Your task to perform on an android device: change your default location settings in chrome Image 0: 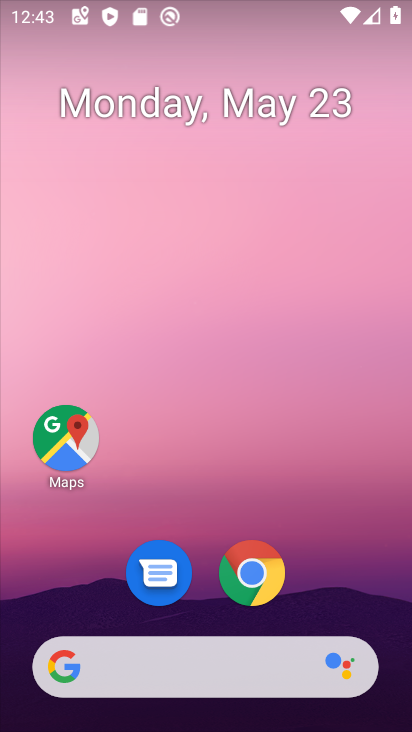
Step 0: drag from (320, 646) to (351, 1)
Your task to perform on an android device: change your default location settings in chrome Image 1: 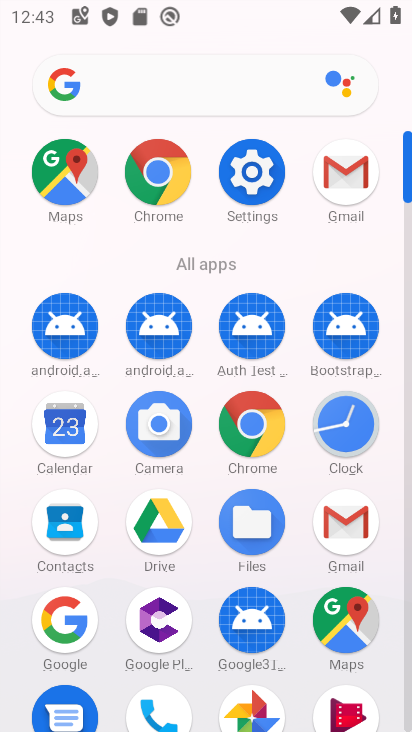
Step 1: click (261, 437)
Your task to perform on an android device: change your default location settings in chrome Image 2: 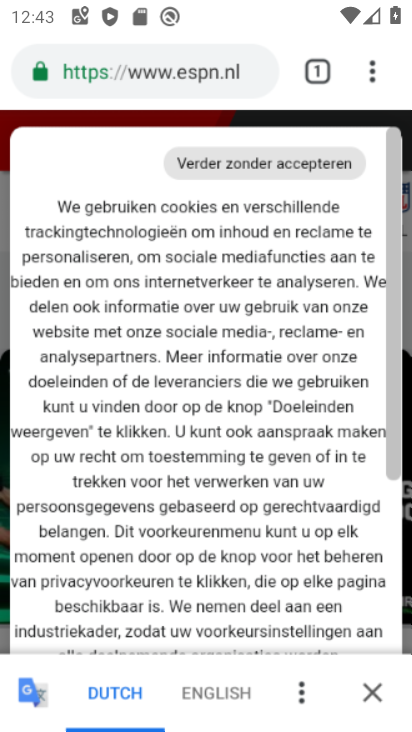
Step 2: click (170, 439)
Your task to perform on an android device: change your default location settings in chrome Image 3: 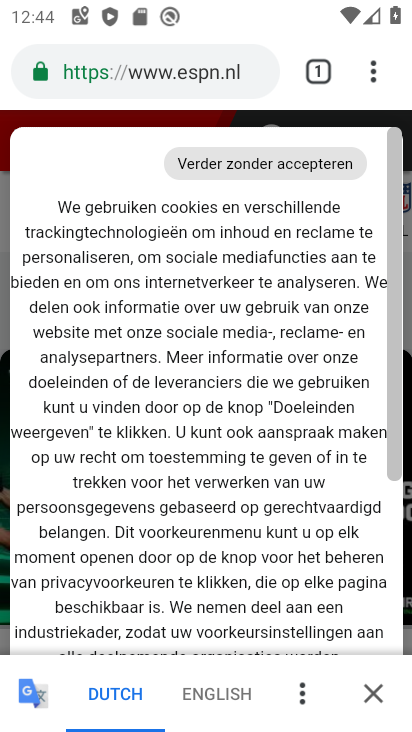
Step 3: press back button
Your task to perform on an android device: change your default location settings in chrome Image 4: 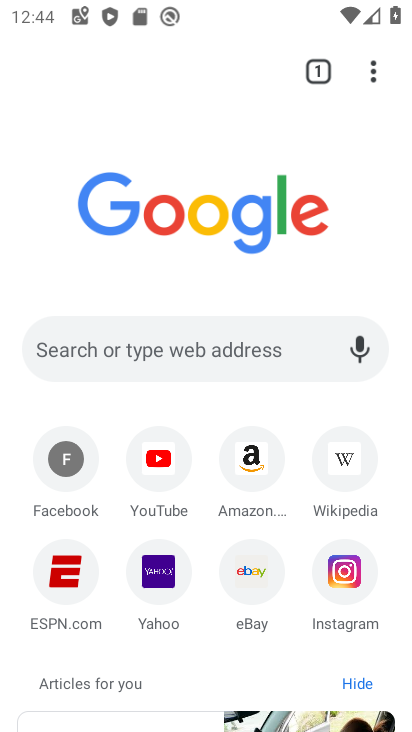
Step 4: drag from (363, 57) to (166, 604)
Your task to perform on an android device: change your default location settings in chrome Image 5: 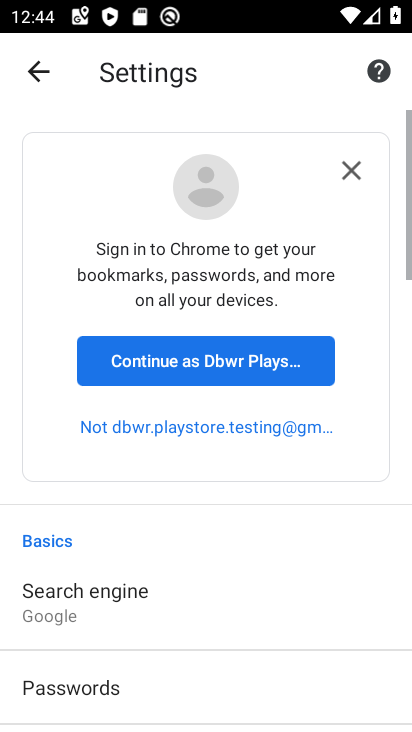
Step 5: drag from (158, 595) to (254, 106)
Your task to perform on an android device: change your default location settings in chrome Image 6: 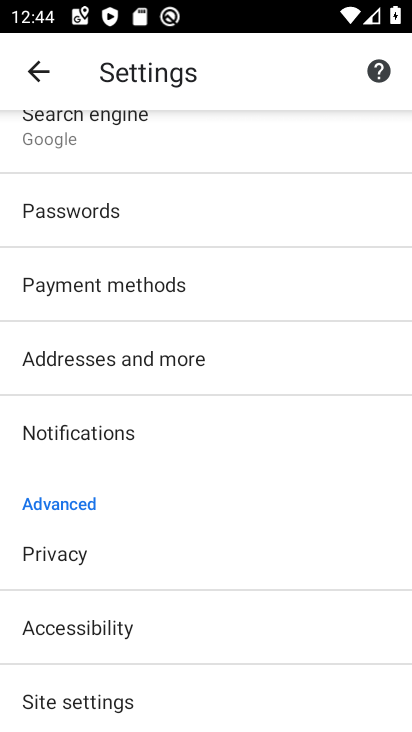
Step 6: drag from (209, 629) to (171, 312)
Your task to perform on an android device: change your default location settings in chrome Image 7: 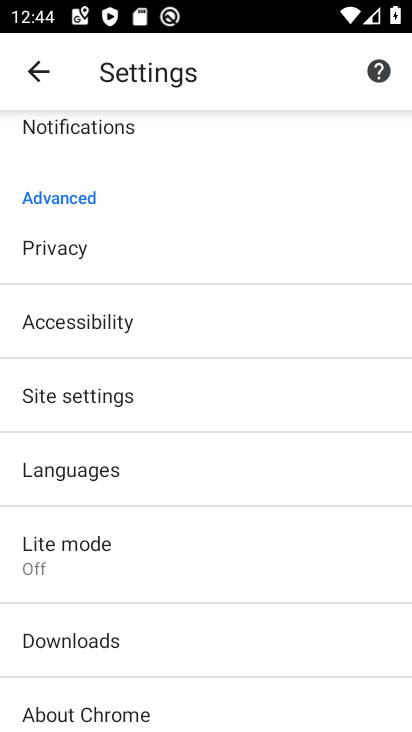
Step 7: click (108, 419)
Your task to perform on an android device: change your default location settings in chrome Image 8: 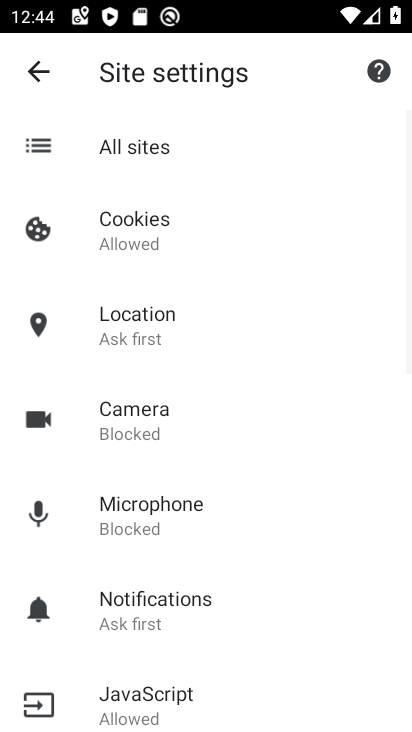
Step 8: click (148, 315)
Your task to perform on an android device: change your default location settings in chrome Image 9: 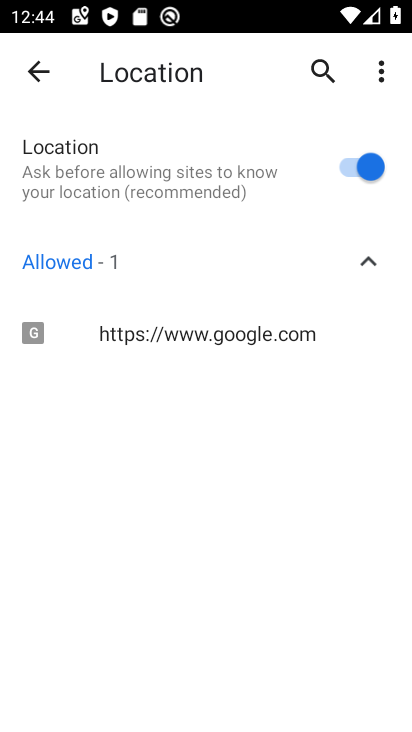
Step 9: task complete